Your task to perform on an android device: Open Reddit.com Image 0: 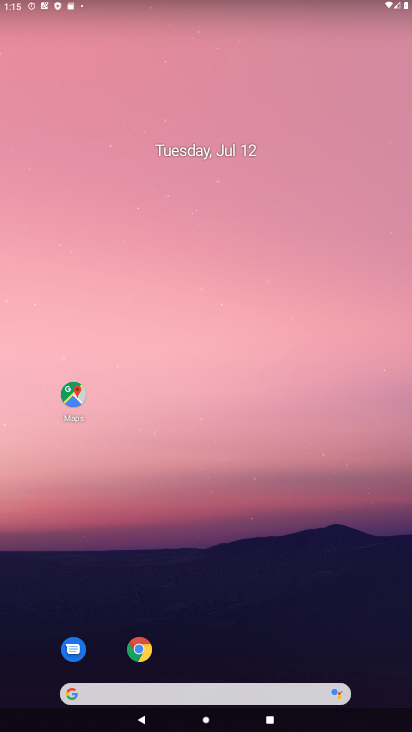
Step 0: drag from (167, 595) to (0, 27)
Your task to perform on an android device: Open Reddit.com Image 1: 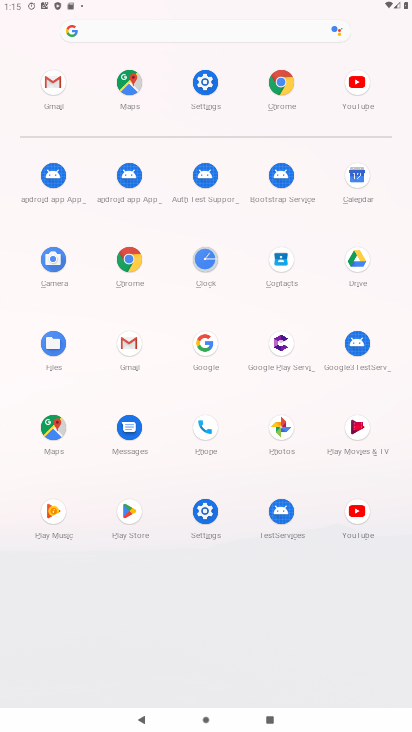
Step 1: click (195, 344)
Your task to perform on an android device: Open Reddit.com Image 2: 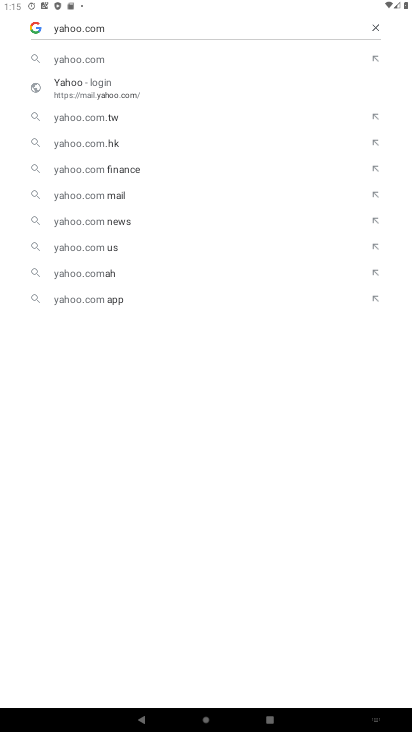
Step 2: press back button
Your task to perform on an android device: Open Reddit.com Image 3: 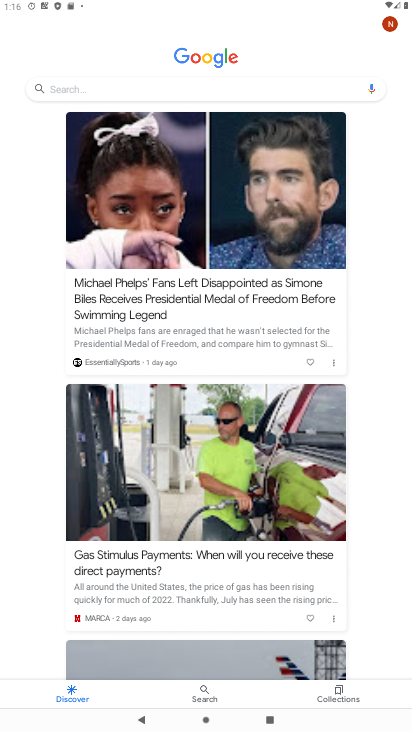
Step 3: click (73, 91)
Your task to perform on an android device: Open Reddit.com Image 4: 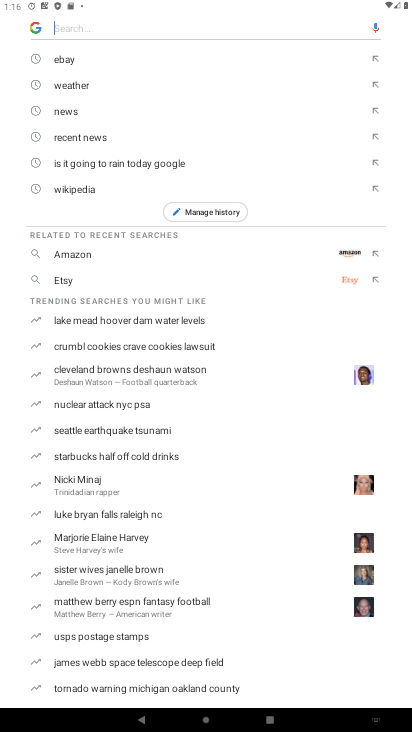
Step 4: type "Reddit.com"
Your task to perform on an android device: Open Reddit.com Image 5: 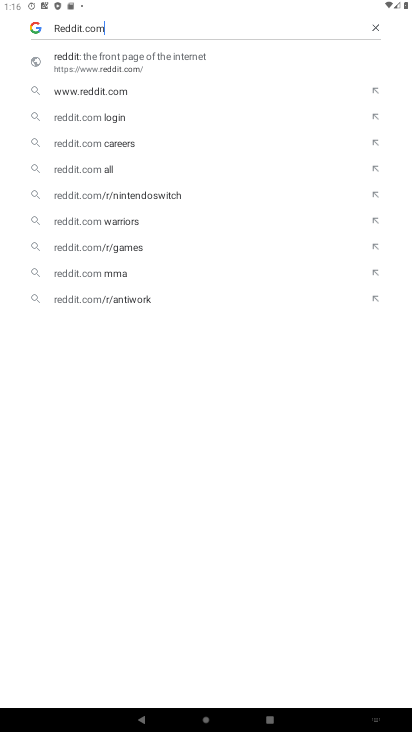
Step 5: click (133, 64)
Your task to perform on an android device: Open Reddit.com Image 6: 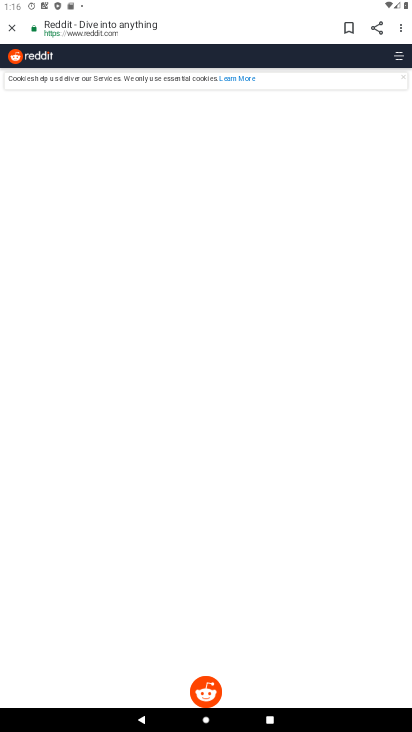
Step 6: task complete